Your task to perform on an android device: Open the map Image 0: 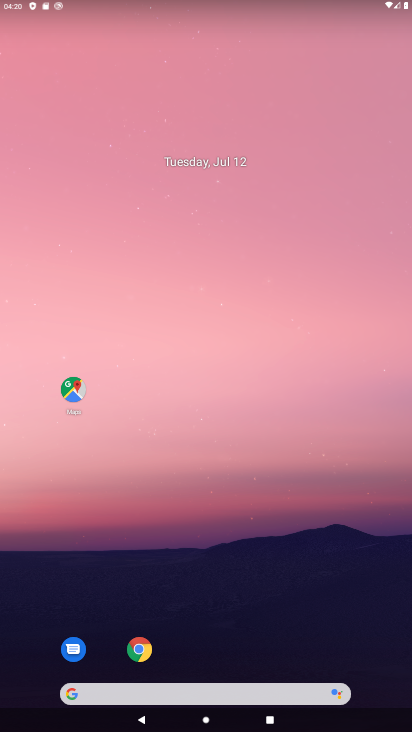
Step 0: click (75, 390)
Your task to perform on an android device: Open the map Image 1: 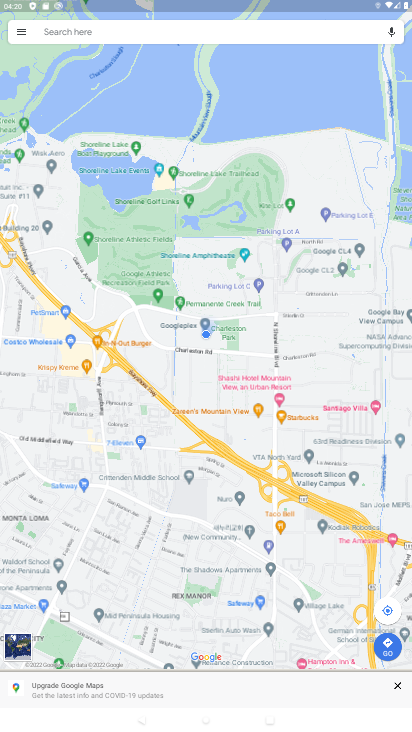
Step 1: task complete